Your task to perform on an android device: Go to Yahoo.com Image 0: 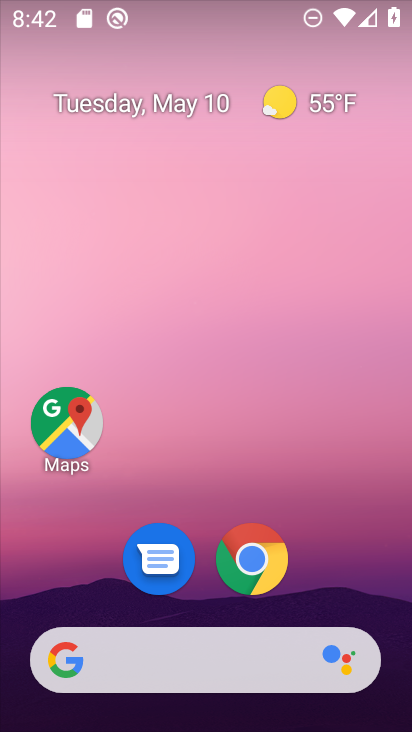
Step 0: click (255, 552)
Your task to perform on an android device: Go to Yahoo.com Image 1: 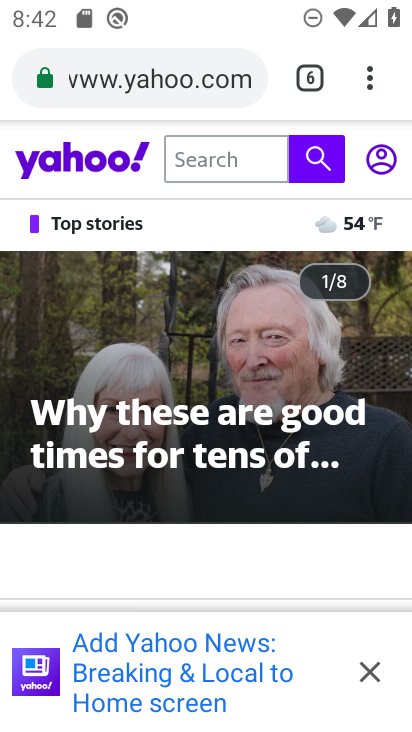
Step 1: task complete